Your task to perform on an android device: change the clock display to show seconds Image 0: 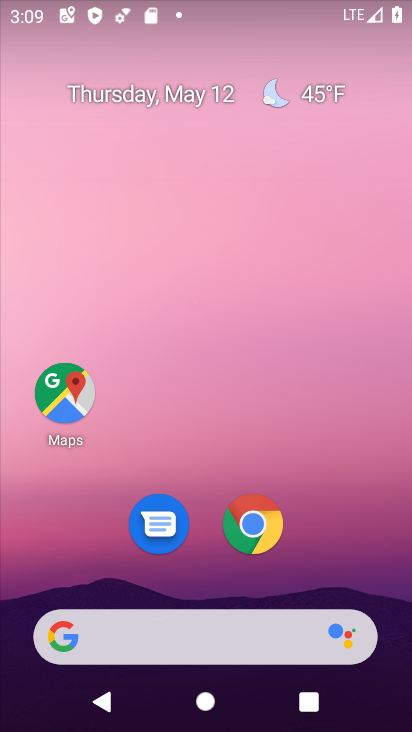
Step 0: drag from (334, 541) to (334, 84)
Your task to perform on an android device: change the clock display to show seconds Image 1: 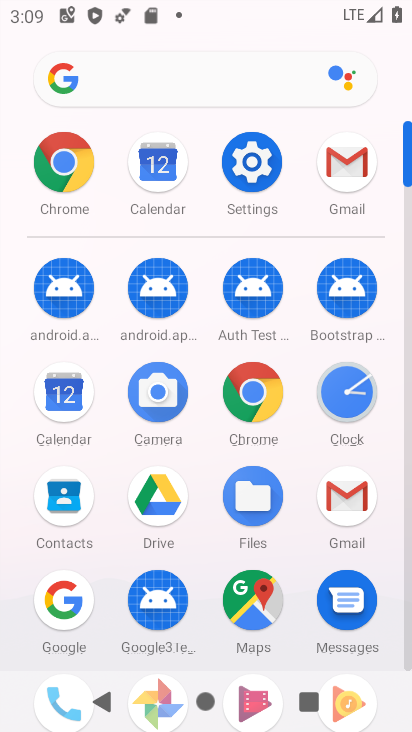
Step 1: click (337, 375)
Your task to perform on an android device: change the clock display to show seconds Image 2: 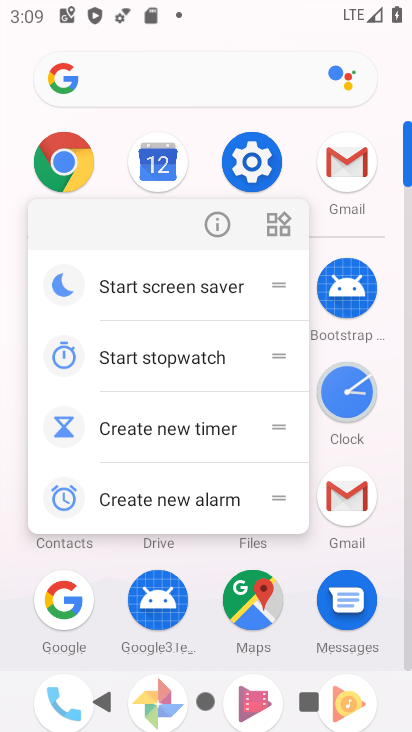
Step 2: click (345, 386)
Your task to perform on an android device: change the clock display to show seconds Image 3: 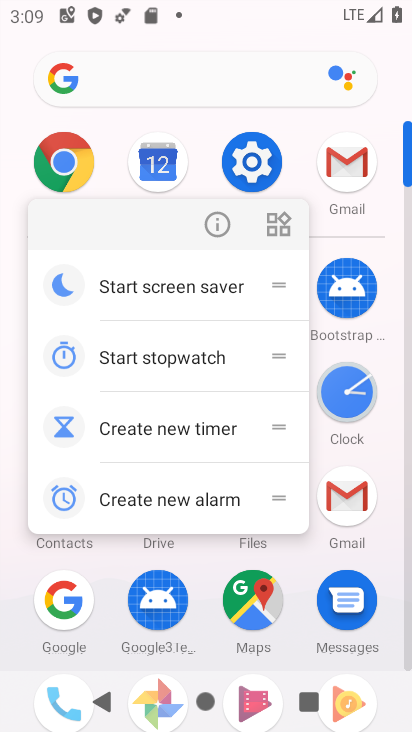
Step 3: click (346, 382)
Your task to perform on an android device: change the clock display to show seconds Image 4: 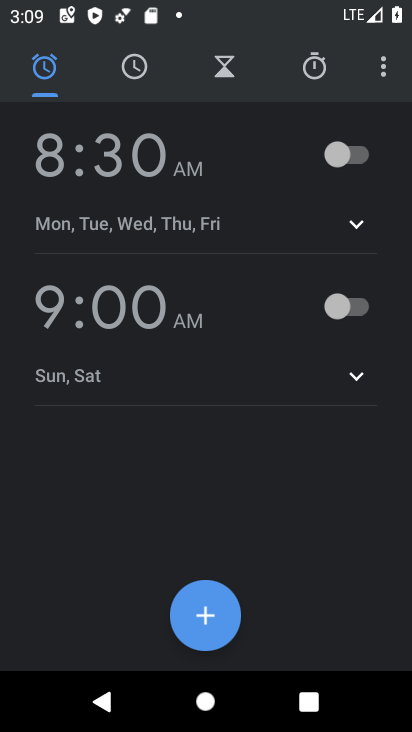
Step 4: click (377, 75)
Your task to perform on an android device: change the clock display to show seconds Image 5: 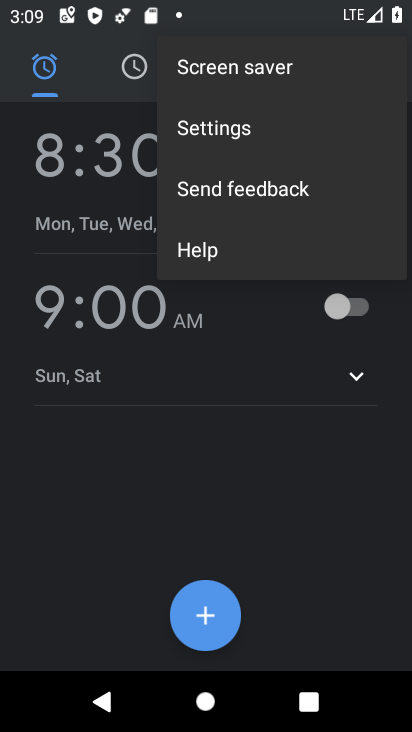
Step 5: click (326, 123)
Your task to perform on an android device: change the clock display to show seconds Image 6: 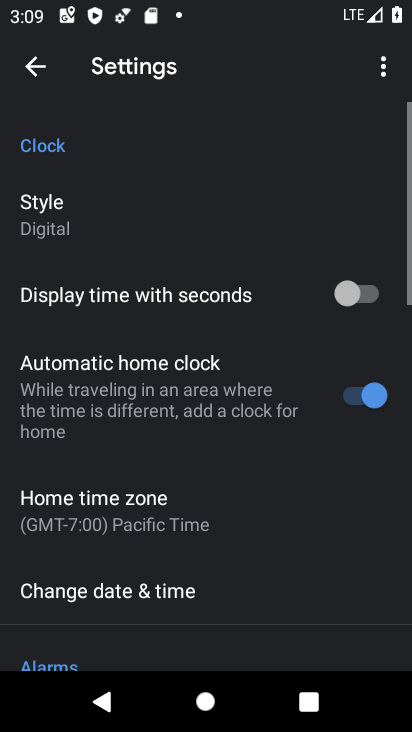
Step 6: click (349, 288)
Your task to perform on an android device: change the clock display to show seconds Image 7: 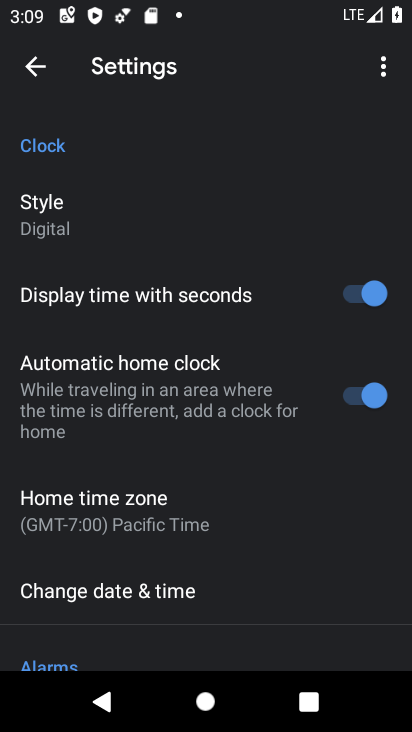
Step 7: task complete